Your task to perform on an android device: Show me recent news Image 0: 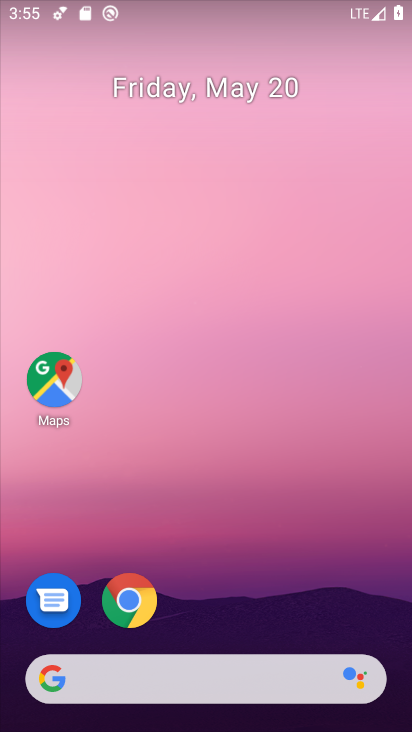
Step 0: drag from (2, 237) to (393, 295)
Your task to perform on an android device: Show me recent news Image 1: 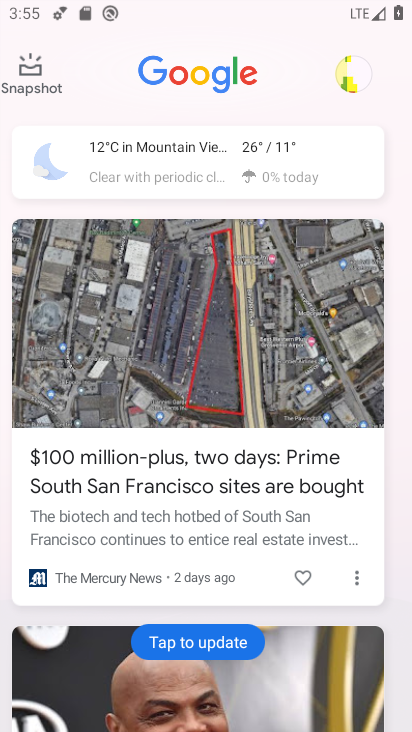
Step 1: task complete